Your task to perform on an android device: Is it going to rain tomorrow? Image 0: 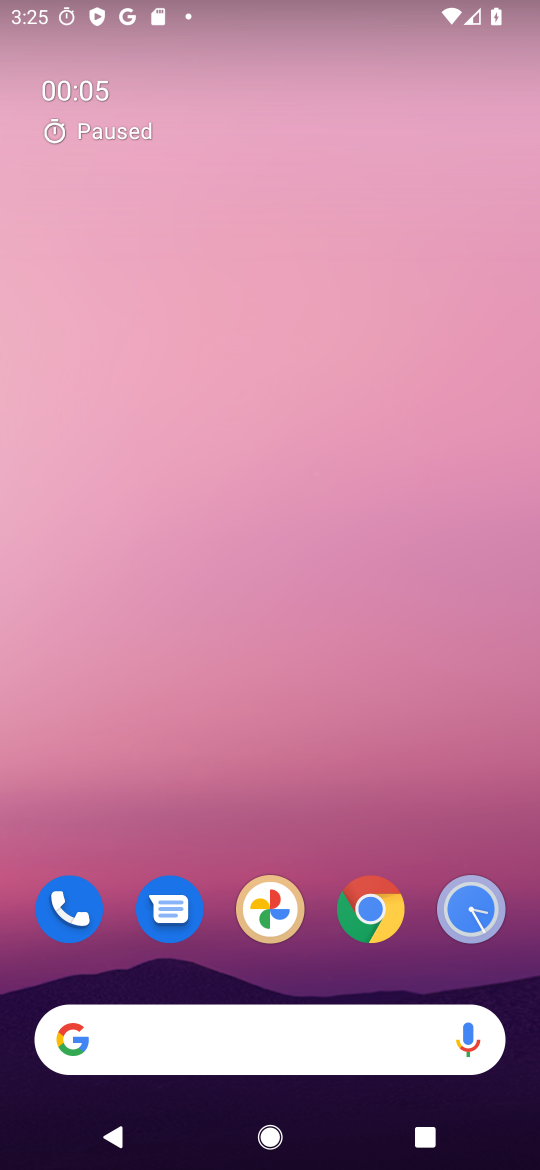
Step 0: drag from (287, 999) to (212, 443)
Your task to perform on an android device: Is it going to rain tomorrow? Image 1: 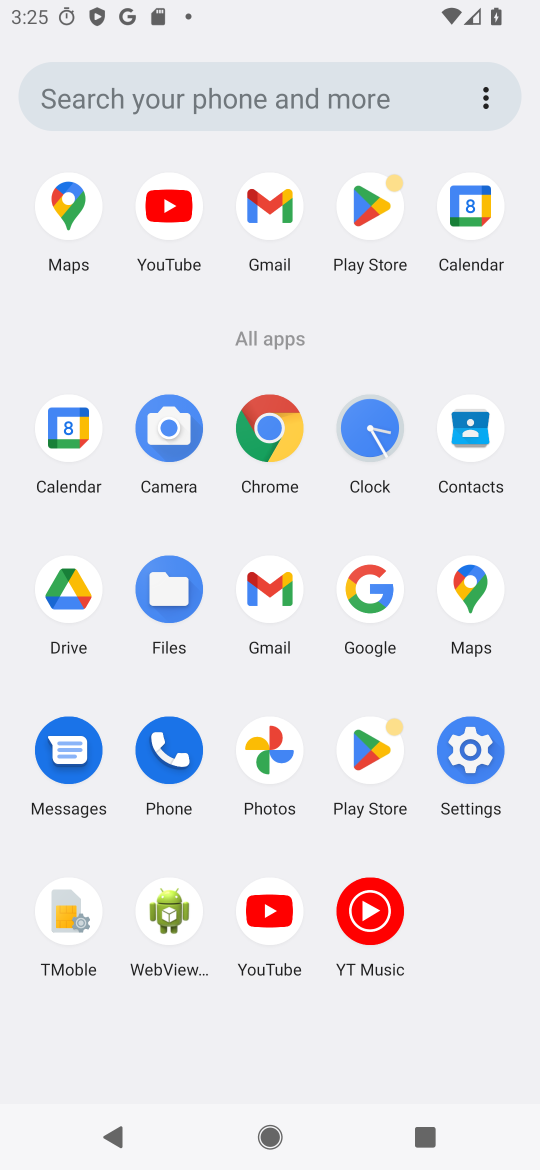
Step 1: click (367, 598)
Your task to perform on an android device: Is it going to rain tomorrow? Image 2: 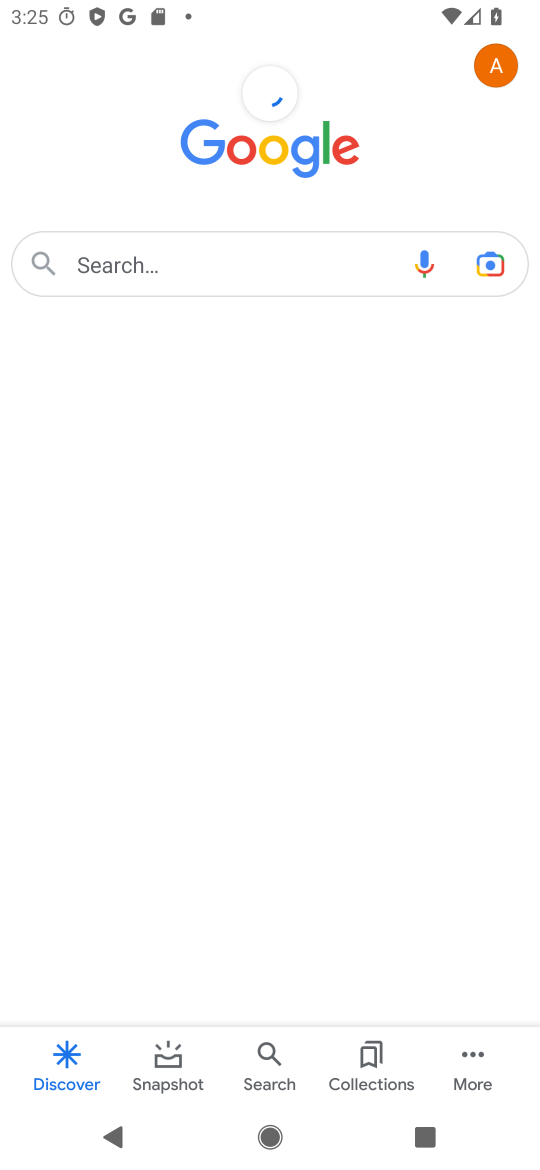
Step 2: click (160, 268)
Your task to perform on an android device: Is it going to rain tomorrow? Image 3: 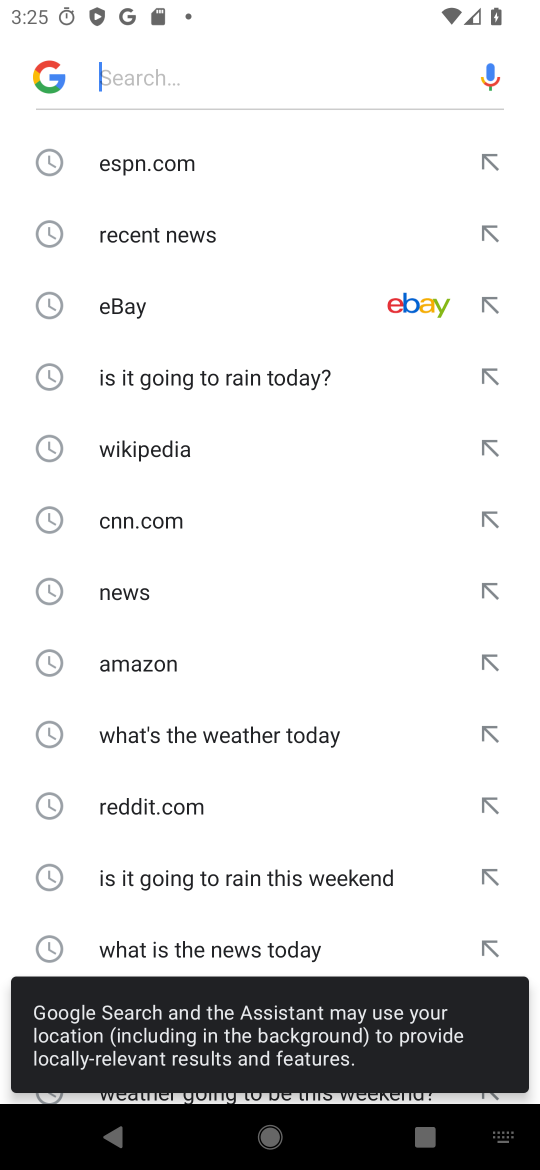
Step 3: drag from (180, 899) to (214, 502)
Your task to perform on an android device: Is it going to rain tomorrow? Image 4: 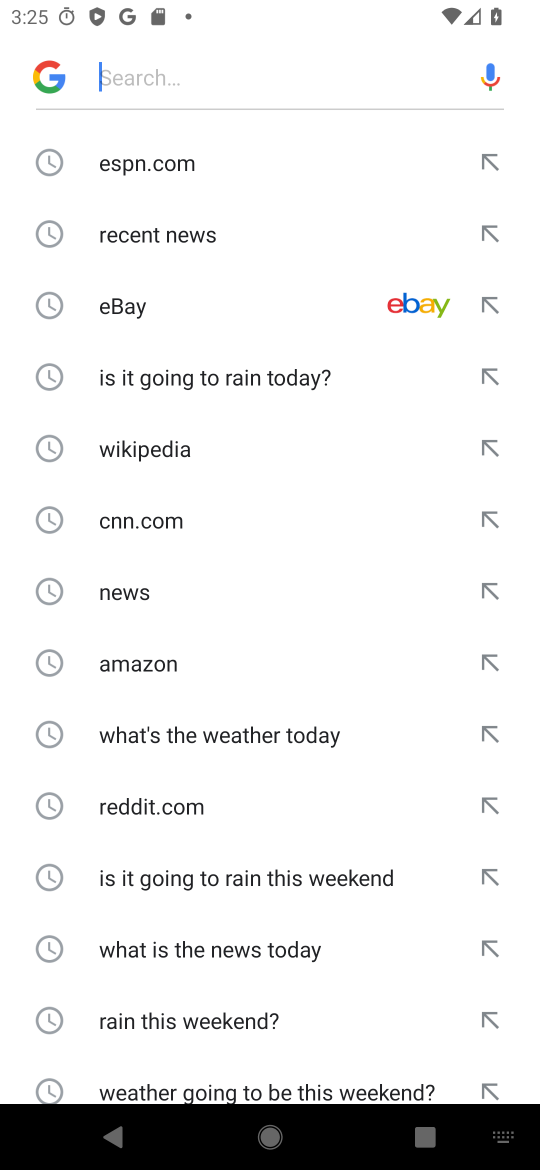
Step 4: click (160, 1026)
Your task to perform on an android device: Is it going to rain tomorrow? Image 5: 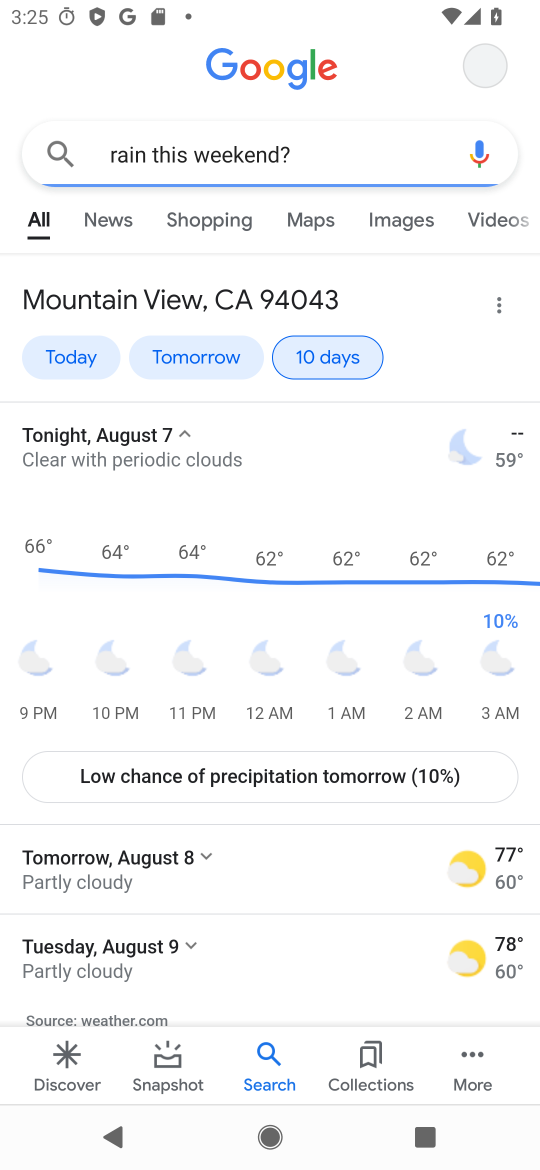
Step 5: click (185, 451)
Your task to perform on an android device: Is it going to rain tomorrow? Image 6: 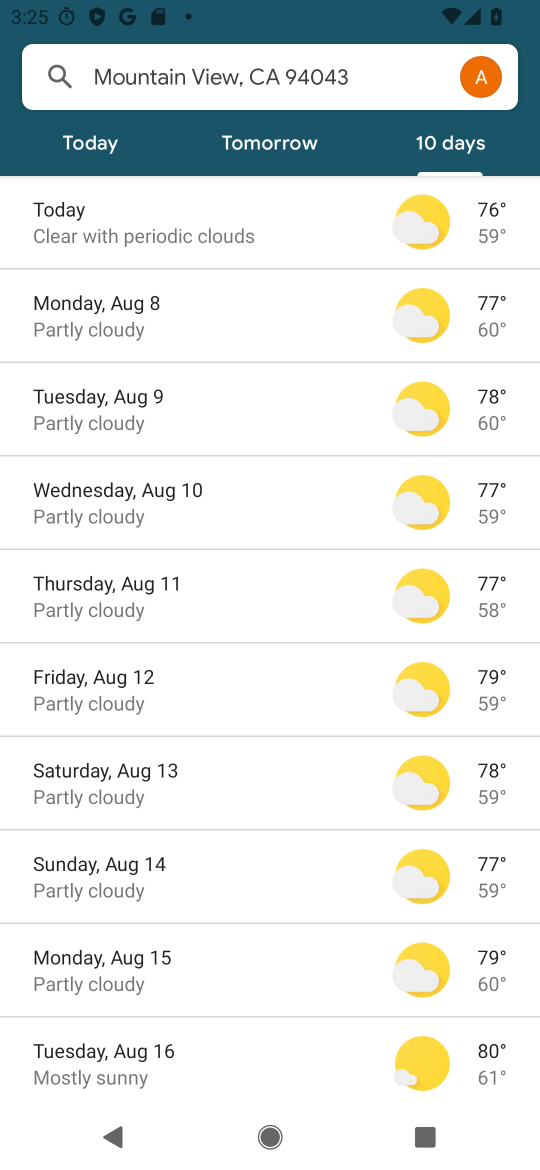
Step 6: click (290, 139)
Your task to perform on an android device: Is it going to rain tomorrow? Image 7: 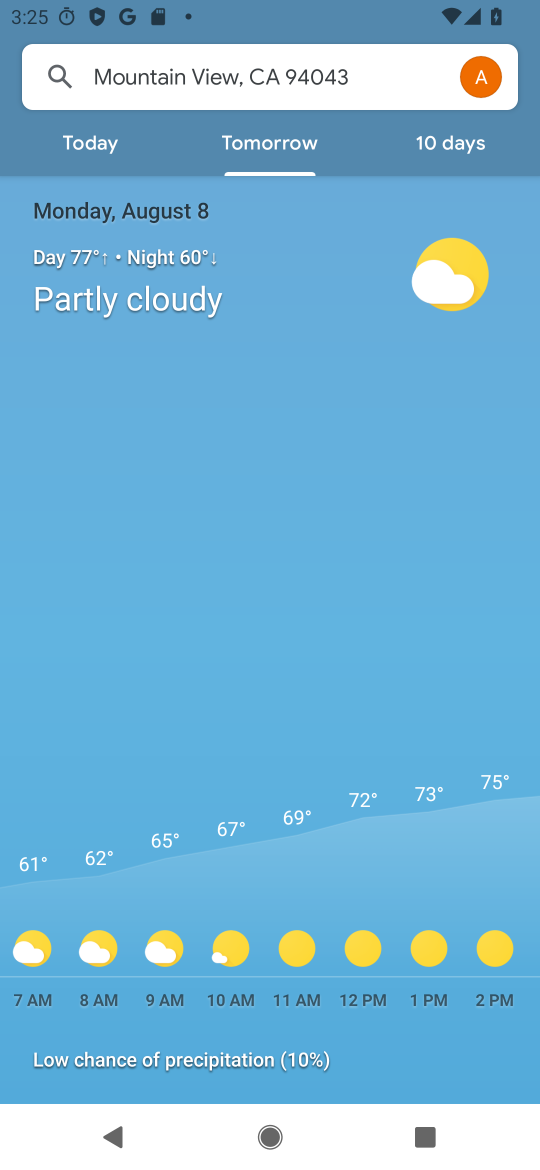
Step 7: task complete